Your task to perform on an android device: allow notifications from all sites in the chrome app Image 0: 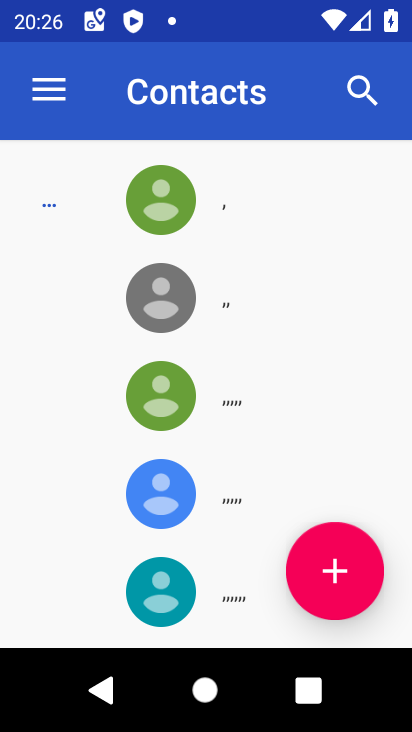
Step 0: press home button
Your task to perform on an android device: allow notifications from all sites in the chrome app Image 1: 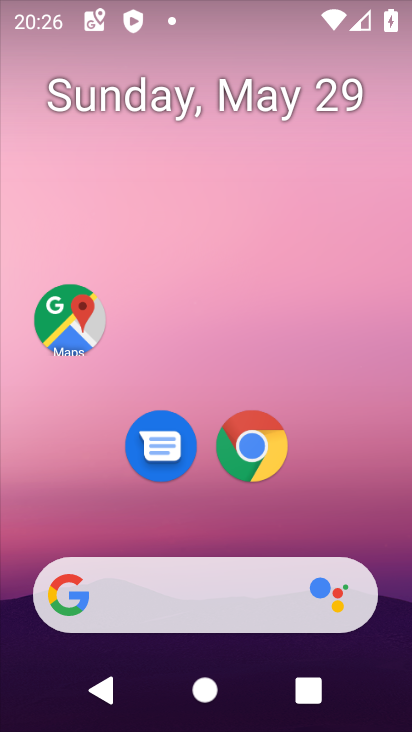
Step 1: click (250, 431)
Your task to perform on an android device: allow notifications from all sites in the chrome app Image 2: 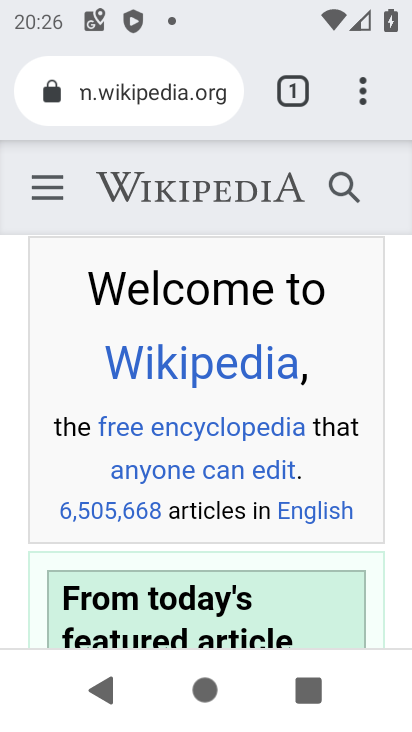
Step 2: drag from (365, 106) to (201, 473)
Your task to perform on an android device: allow notifications from all sites in the chrome app Image 3: 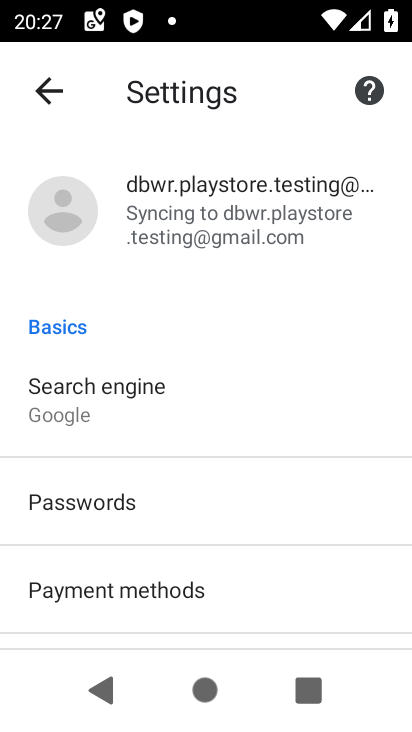
Step 3: drag from (172, 550) to (195, 119)
Your task to perform on an android device: allow notifications from all sites in the chrome app Image 4: 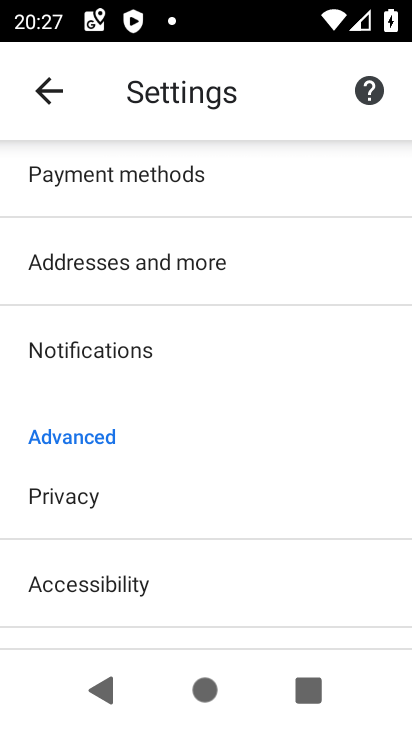
Step 4: drag from (138, 578) to (121, 202)
Your task to perform on an android device: allow notifications from all sites in the chrome app Image 5: 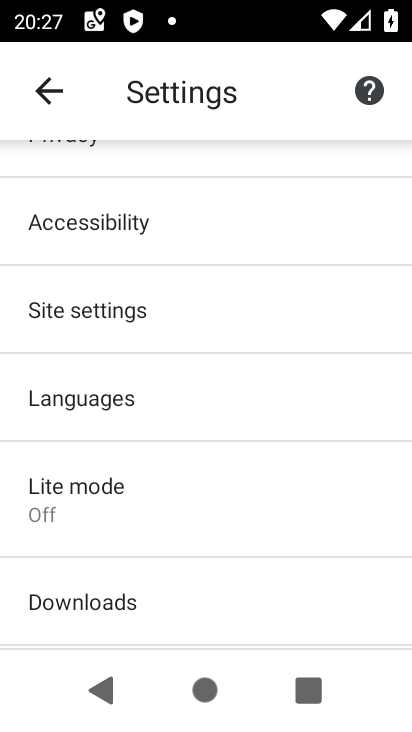
Step 5: click (132, 325)
Your task to perform on an android device: allow notifications from all sites in the chrome app Image 6: 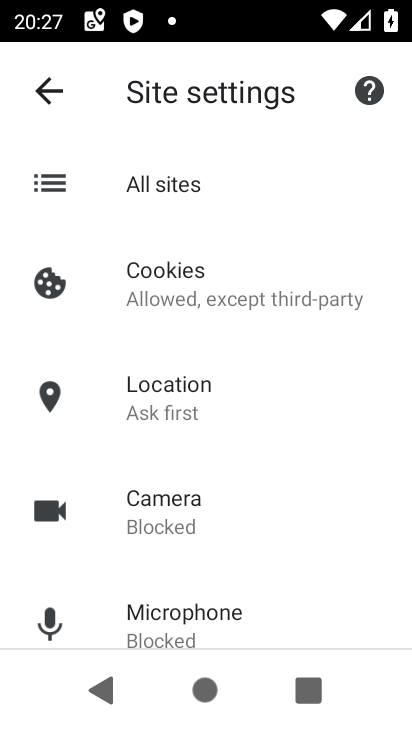
Step 6: drag from (244, 528) to (213, 27)
Your task to perform on an android device: allow notifications from all sites in the chrome app Image 7: 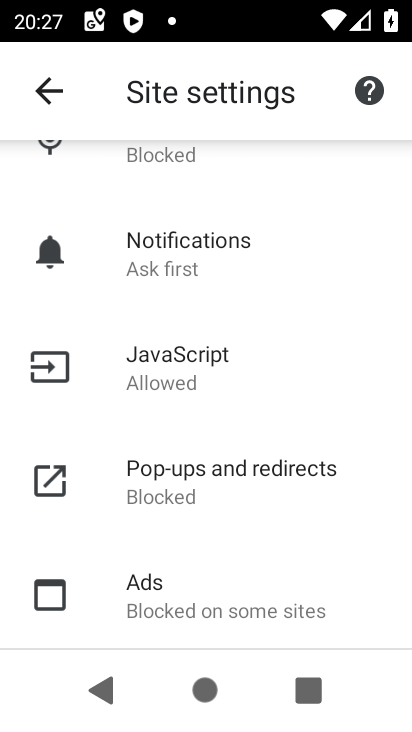
Step 7: click (194, 272)
Your task to perform on an android device: allow notifications from all sites in the chrome app Image 8: 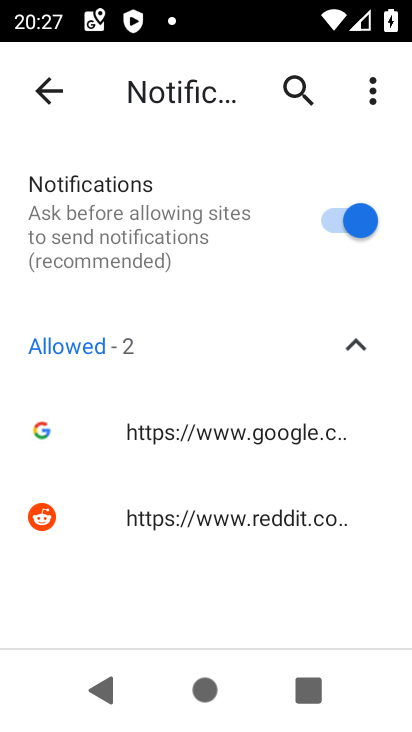
Step 8: task complete